Your task to perform on an android device: delete location history Image 0: 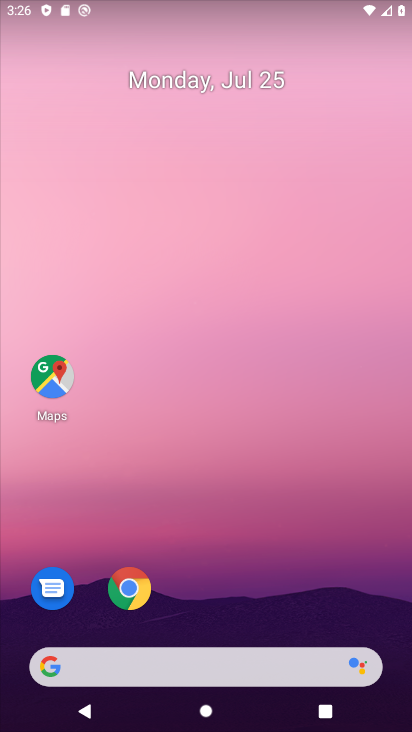
Step 0: drag from (235, 726) to (266, 20)
Your task to perform on an android device: delete location history Image 1: 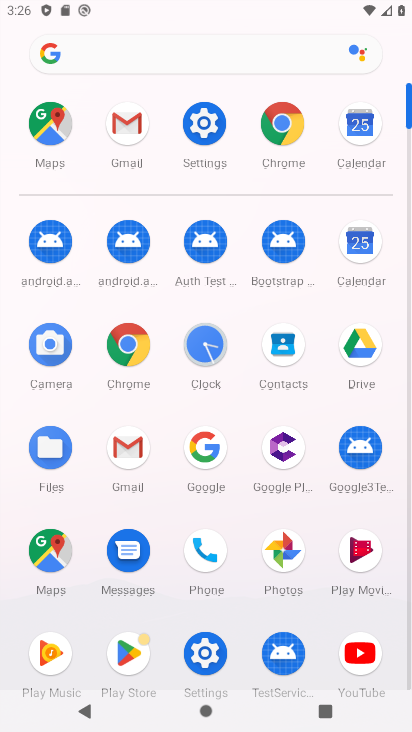
Step 1: click (208, 123)
Your task to perform on an android device: delete location history Image 2: 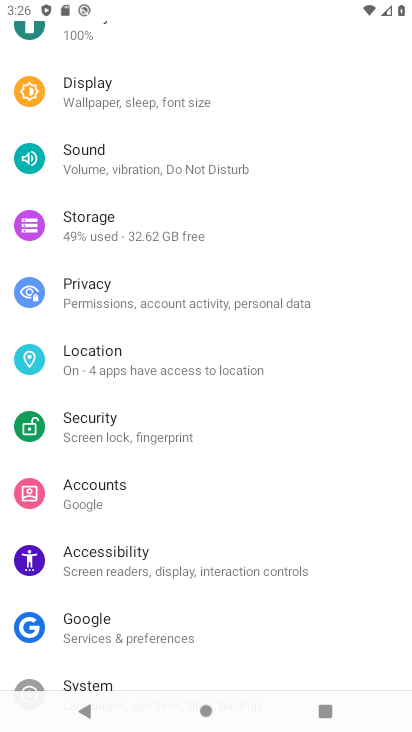
Step 2: drag from (172, 323) to (175, 669)
Your task to perform on an android device: delete location history Image 3: 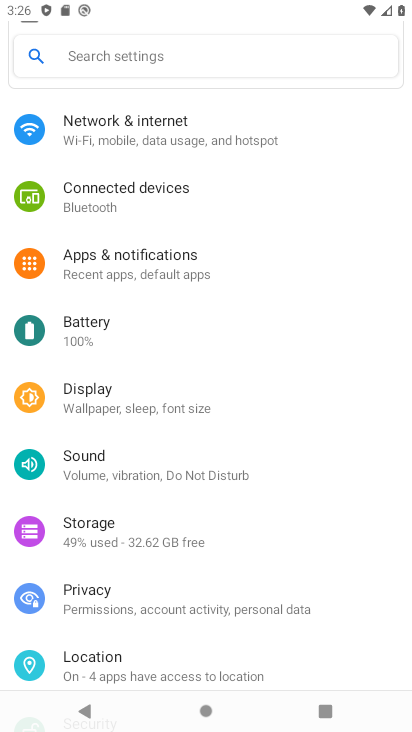
Step 3: click (104, 650)
Your task to perform on an android device: delete location history Image 4: 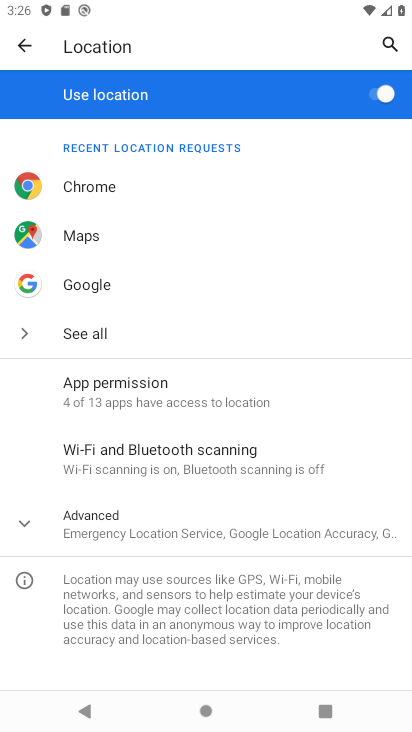
Step 4: click (196, 524)
Your task to perform on an android device: delete location history Image 5: 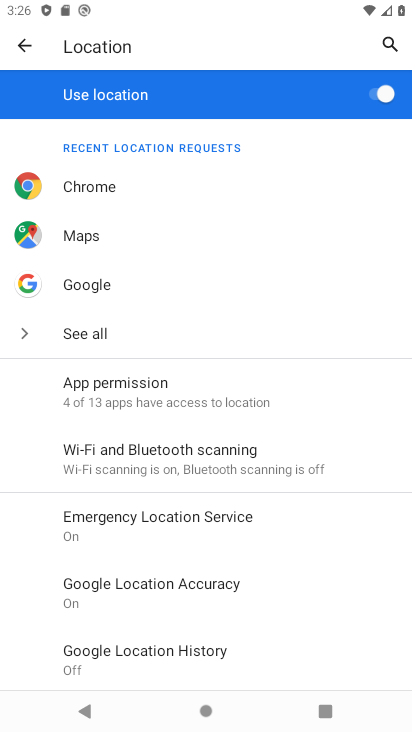
Step 5: click (180, 651)
Your task to perform on an android device: delete location history Image 6: 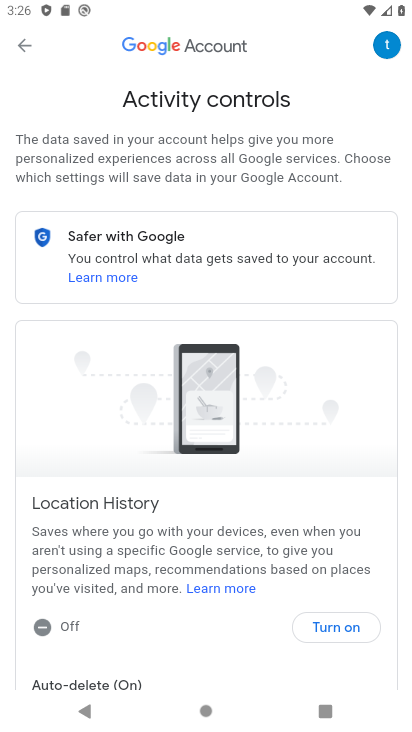
Step 6: click (339, 629)
Your task to perform on an android device: delete location history Image 7: 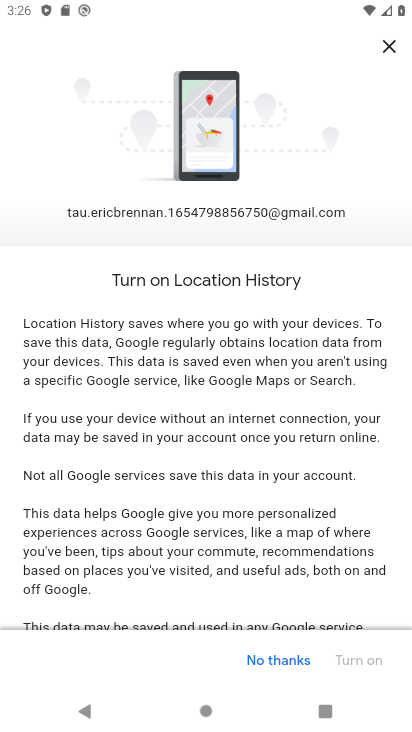
Step 7: drag from (349, 609) to (349, 208)
Your task to perform on an android device: delete location history Image 8: 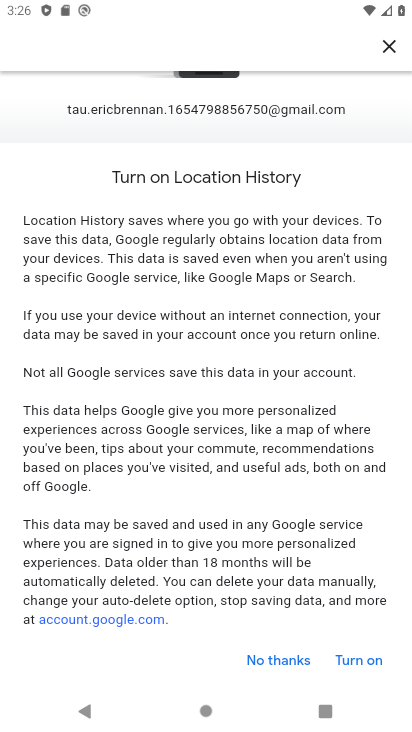
Step 8: click (347, 656)
Your task to perform on an android device: delete location history Image 9: 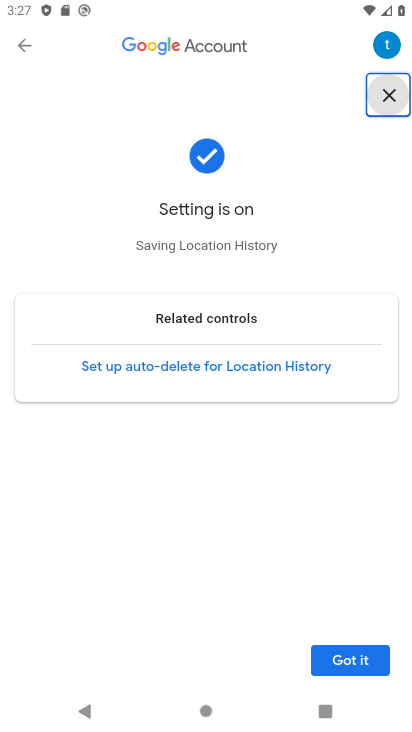
Step 9: click (360, 660)
Your task to perform on an android device: delete location history Image 10: 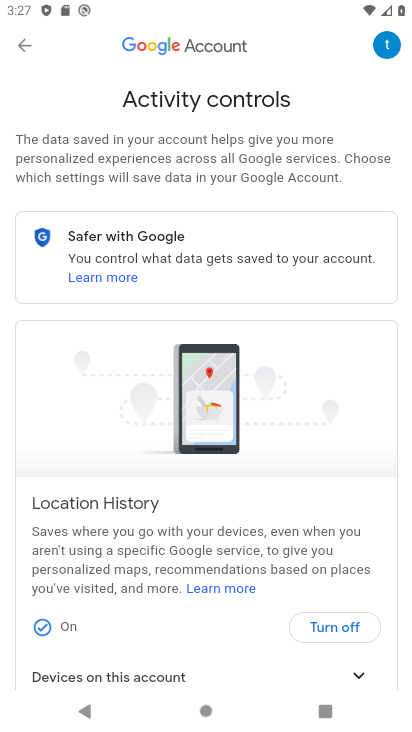
Step 10: drag from (242, 570) to (261, 331)
Your task to perform on an android device: delete location history Image 11: 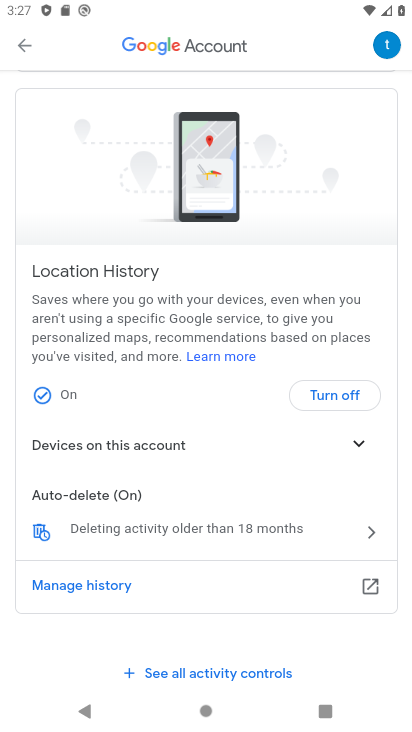
Step 11: click (61, 579)
Your task to perform on an android device: delete location history Image 12: 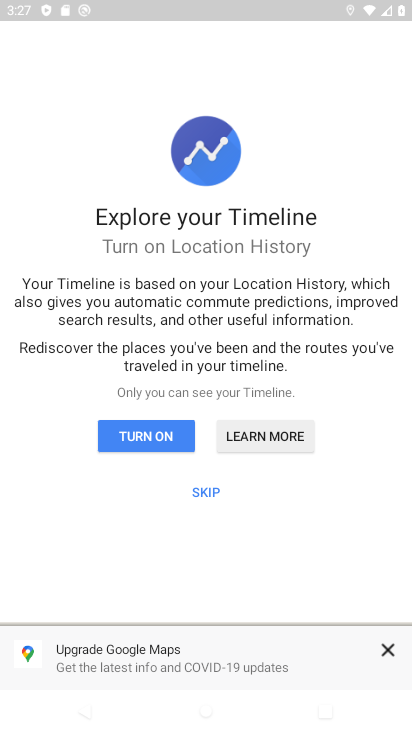
Step 12: click (206, 485)
Your task to perform on an android device: delete location history Image 13: 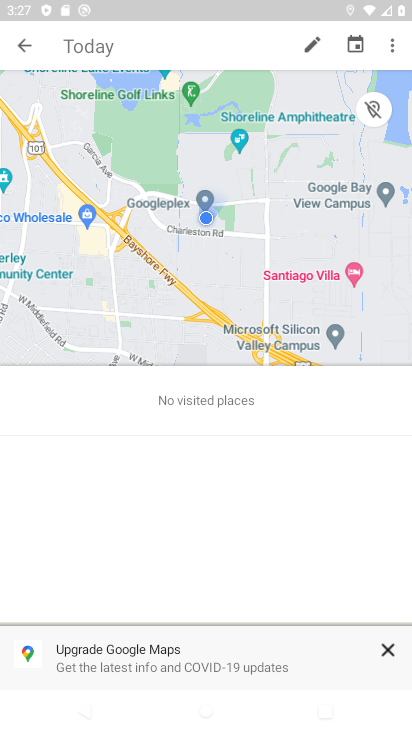
Step 13: task complete